Your task to perform on an android device: Open the calendar app, open the side menu, and click the "Day" option Image 0: 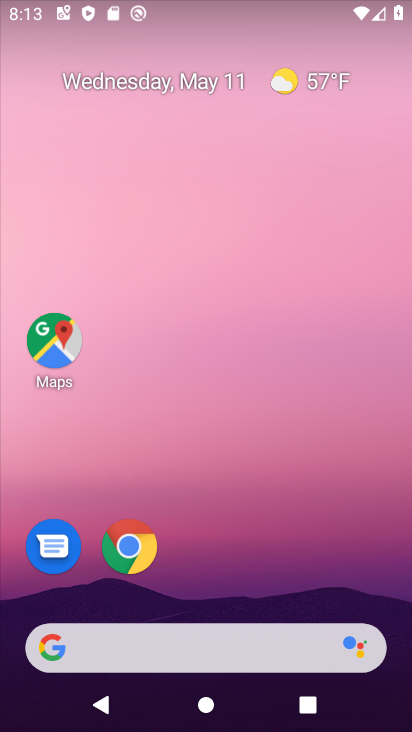
Step 0: drag from (206, 597) to (217, 156)
Your task to perform on an android device: Open the calendar app, open the side menu, and click the "Day" option Image 1: 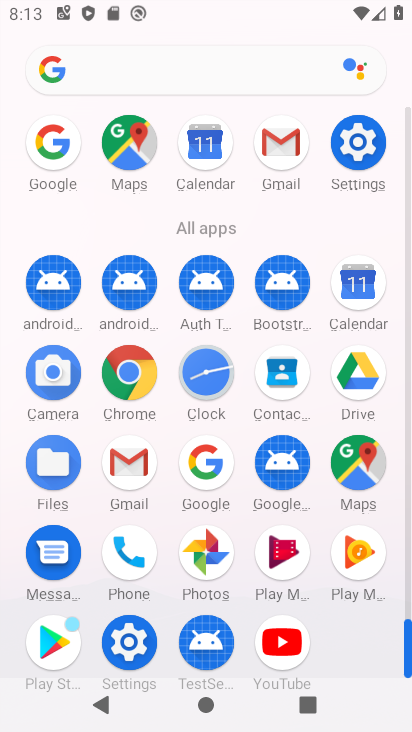
Step 1: click (334, 295)
Your task to perform on an android device: Open the calendar app, open the side menu, and click the "Day" option Image 2: 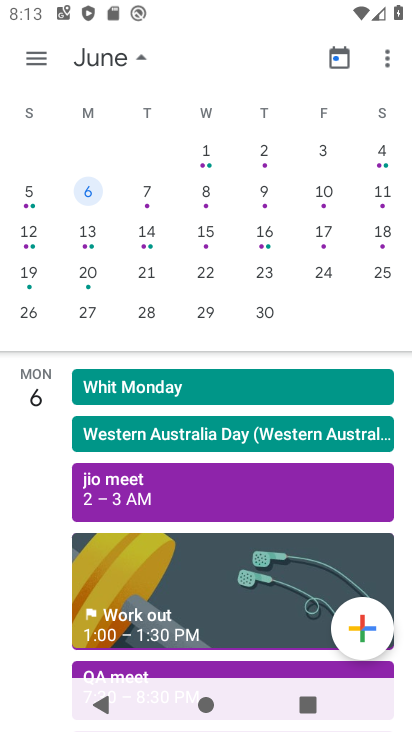
Step 2: click (40, 52)
Your task to perform on an android device: Open the calendar app, open the side menu, and click the "Day" option Image 3: 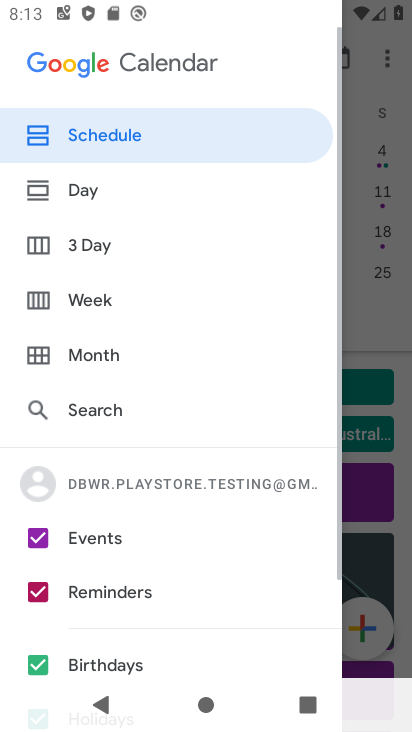
Step 3: click (93, 185)
Your task to perform on an android device: Open the calendar app, open the side menu, and click the "Day" option Image 4: 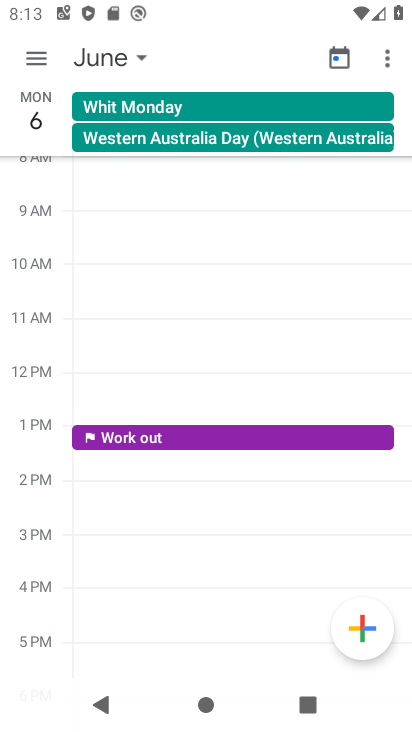
Step 4: task complete